Your task to perform on an android device: Open Youtube and go to the subscriptions tab Image 0: 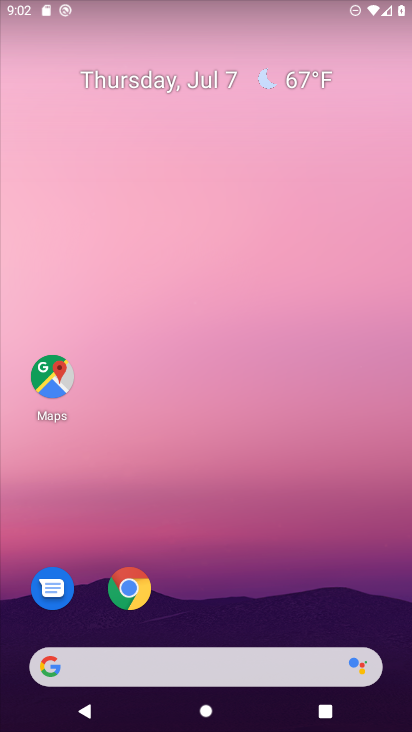
Step 0: drag from (262, 616) to (218, 102)
Your task to perform on an android device: Open Youtube and go to the subscriptions tab Image 1: 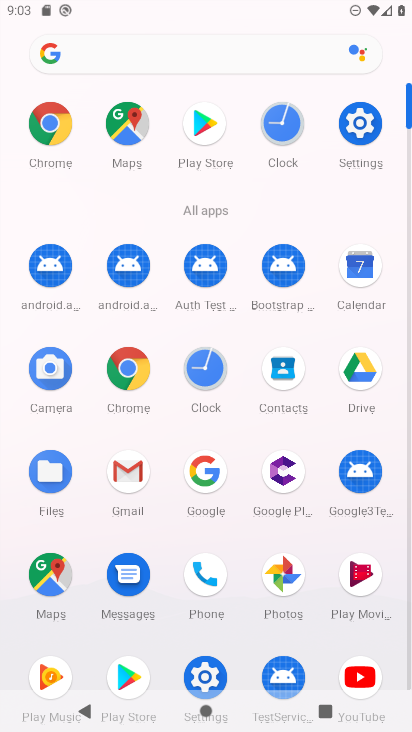
Step 1: click (358, 676)
Your task to perform on an android device: Open Youtube and go to the subscriptions tab Image 2: 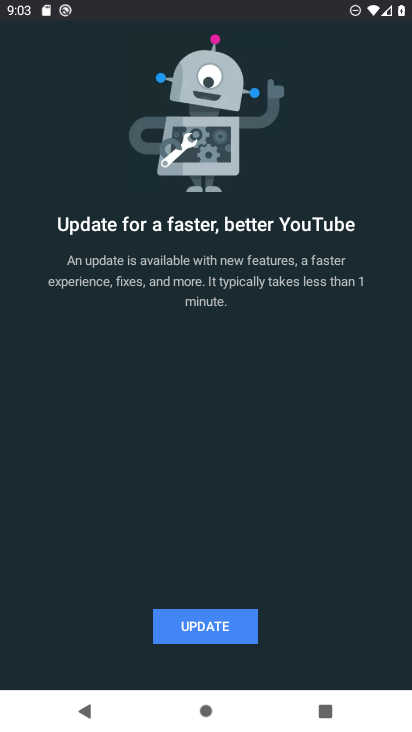
Step 2: click (207, 626)
Your task to perform on an android device: Open Youtube and go to the subscriptions tab Image 3: 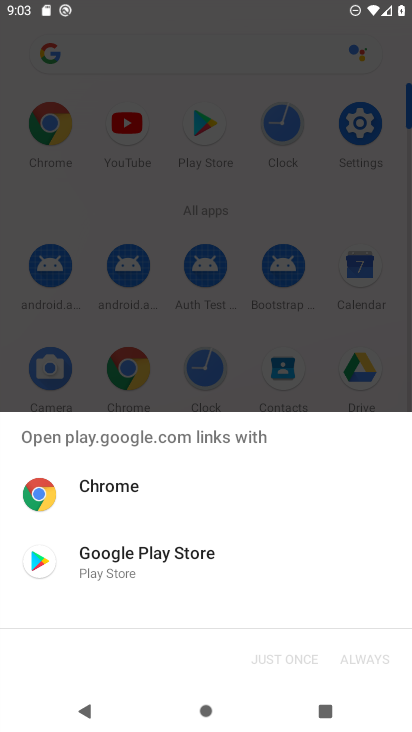
Step 3: click (157, 564)
Your task to perform on an android device: Open Youtube and go to the subscriptions tab Image 4: 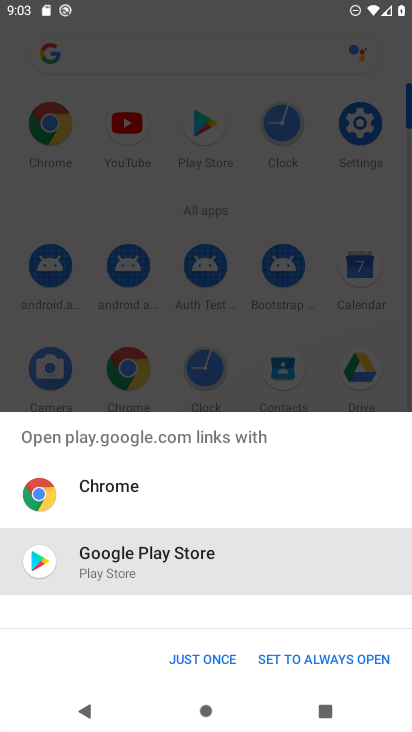
Step 4: click (203, 663)
Your task to perform on an android device: Open Youtube and go to the subscriptions tab Image 5: 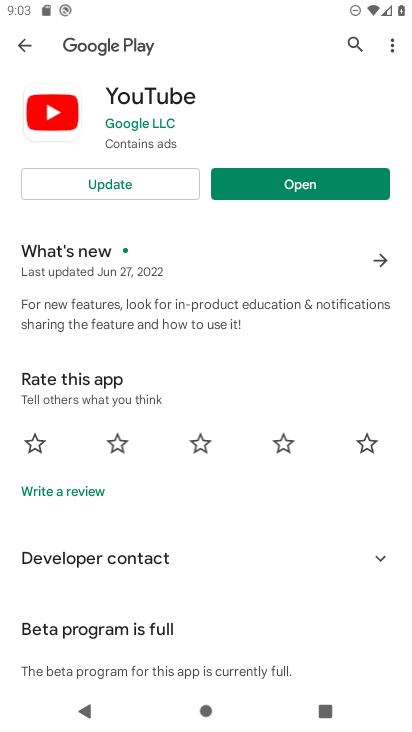
Step 5: click (147, 179)
Your task to perform on an android device: Open Youtube and go to the subscriptions tab Image 6: 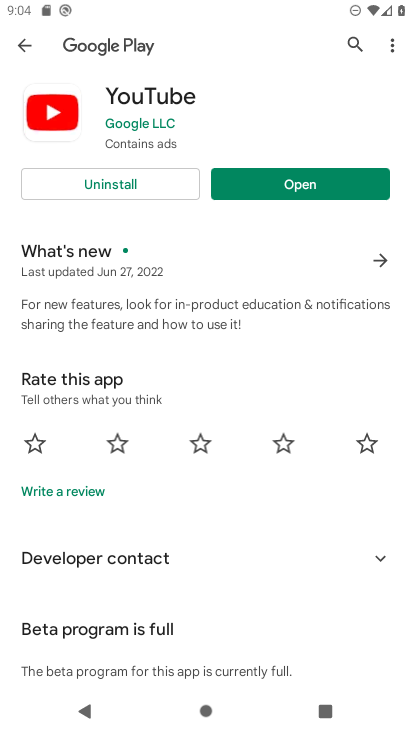
Step 6: click (270, 184)
Your task to perform on an android device: Open Youtube and go to the subscriptions tab Image 7: 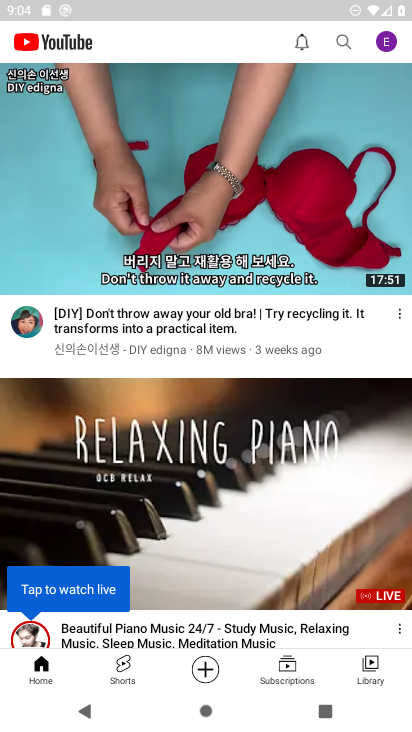
Step 7: click (289, 663)
Your task to perform on an android device: Open Youtube and go to the subscriptions tab Image 8: 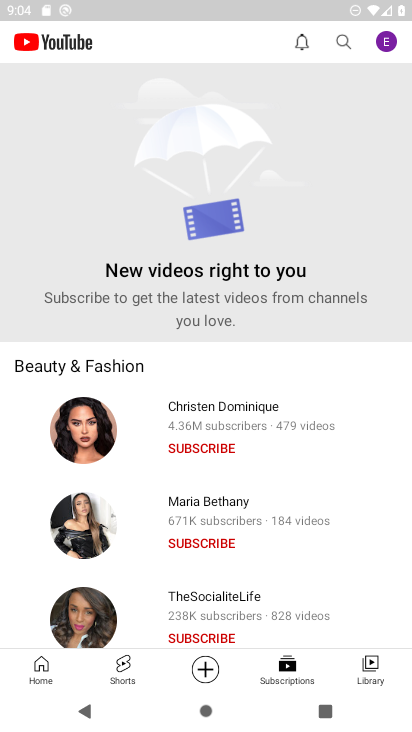
Step 8: task complete